Your task to perform on an android device: add a contact Image 0: 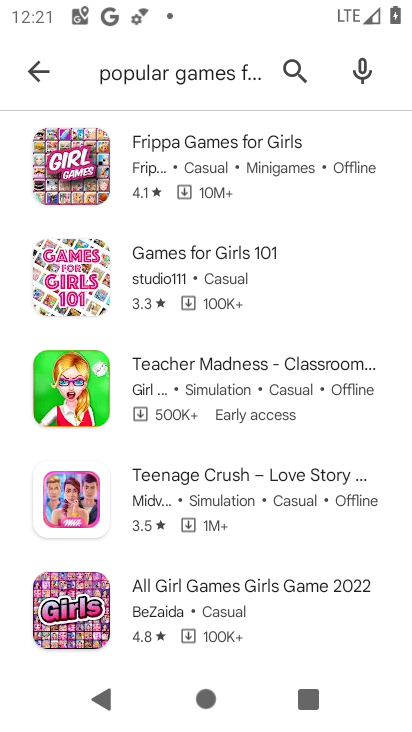
Step 0: press home button
Your task to perform on an android device: add a contact Image 1: 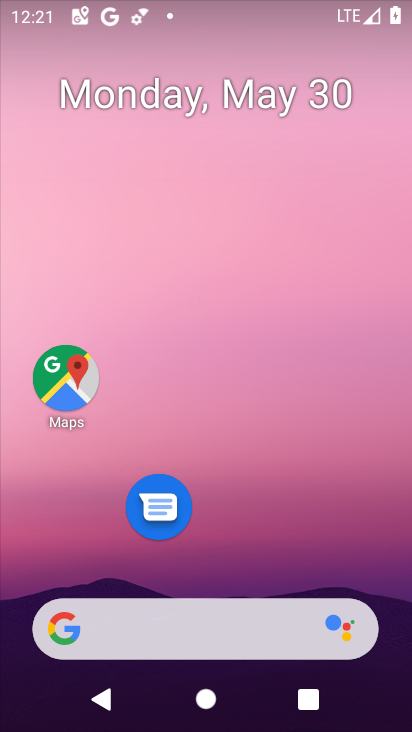
Step 1: drag from (233, 507) to (233, 38)
Your task to perform on an android device: add a contact Image 2: 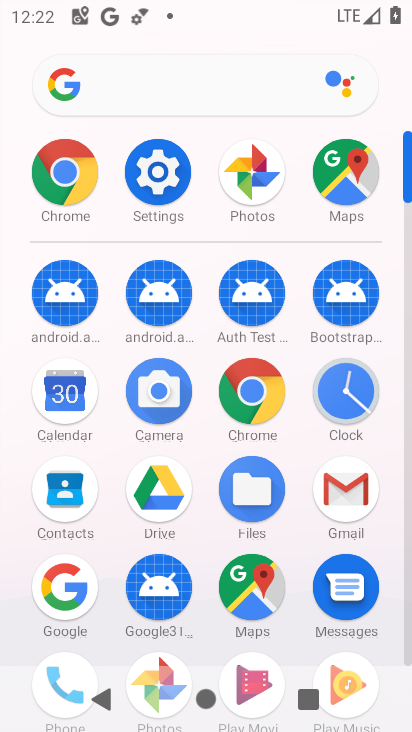
Step 2: drag from (205, 240) to (211, 33)
Your task to perform on an android device: add a contact Image 3: 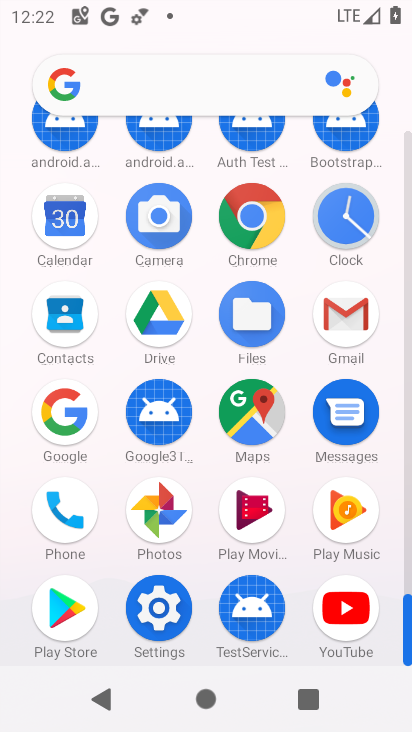
Step 3: click (67, 495)
Your task to perform on an android device: add a contact Image 4: 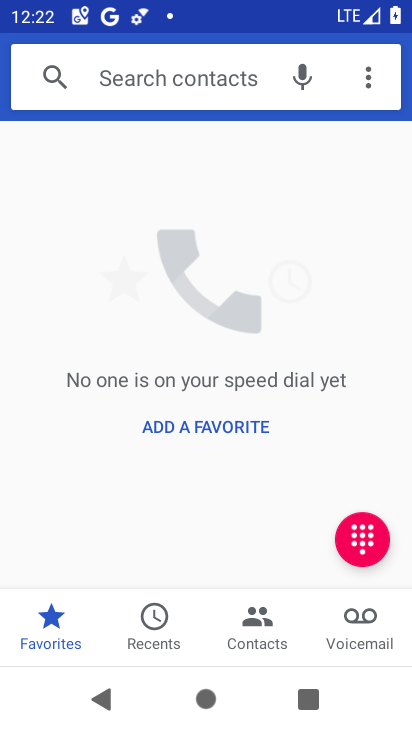
Step 4: click (256, 621)
Your task to perform on an android device: add a contact Image 5: 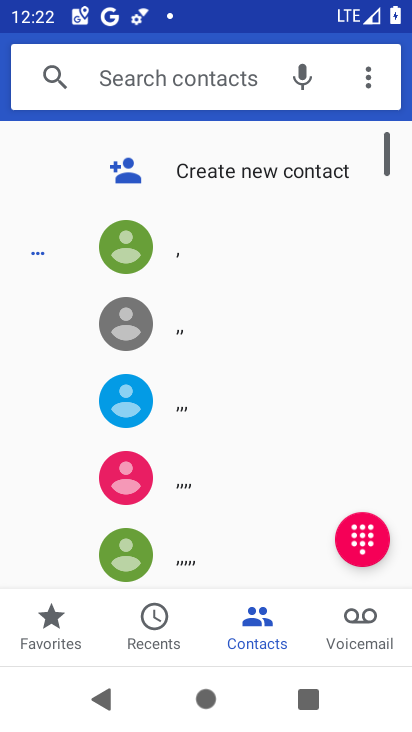
Step 5: click (231, 175)
Your task to perform on an android device: add a contact Image 6: 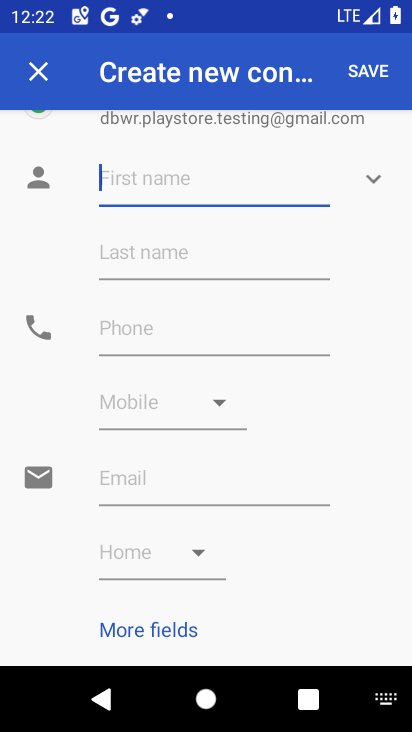
Step 6: type "bbbttt"
Your task to perform on an android device: add a contact Image 7: 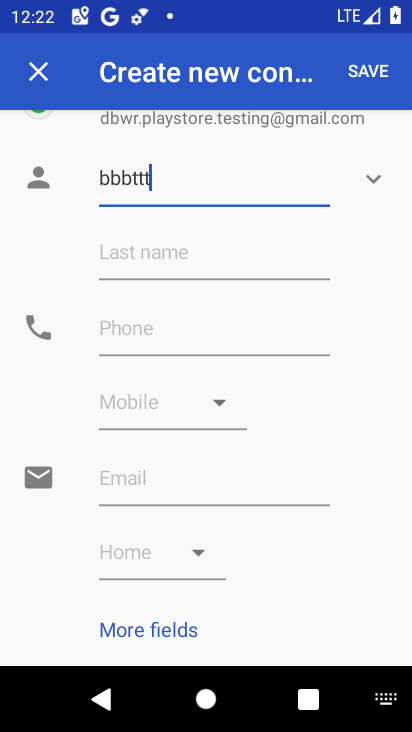
Step 7: click (156, 333)
Your task to perform on an android device: add a contact Image 8: 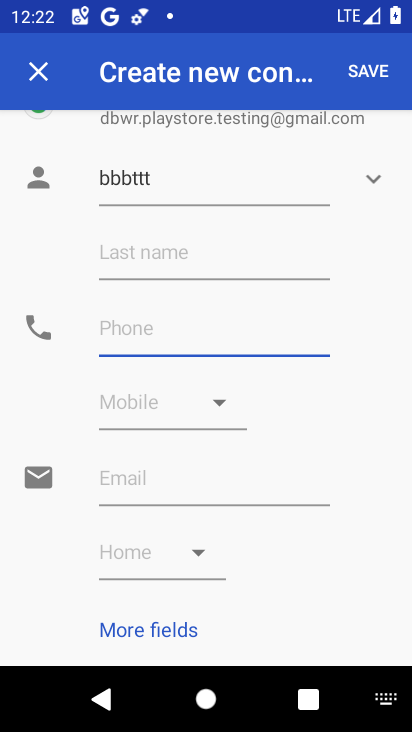
Step 8: type "3376"
Your task to perform on an android device: add a contact Image 9: 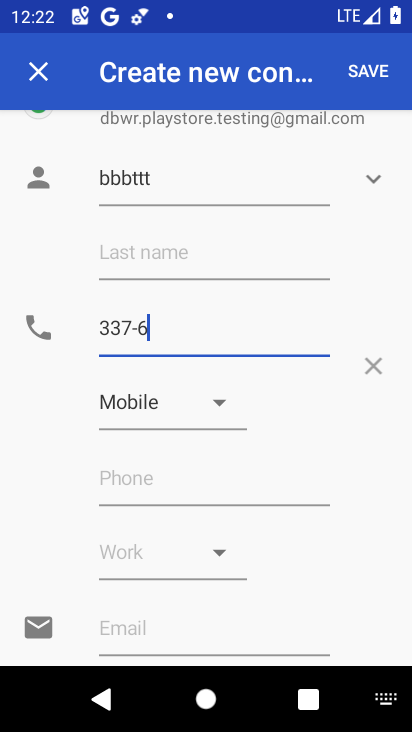
Step 9: click (374, 73)
Your task to perform on an android device: add a contact Image 10: 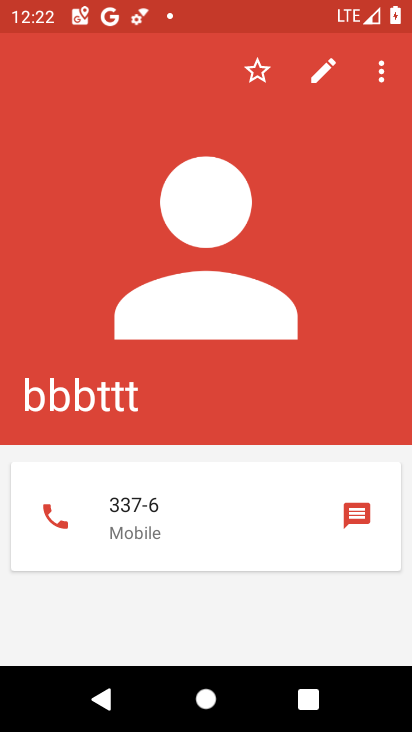
Step 10: task complete